Your task to perform on an android device: Open Youtube and go to "Your channel" Image 0: 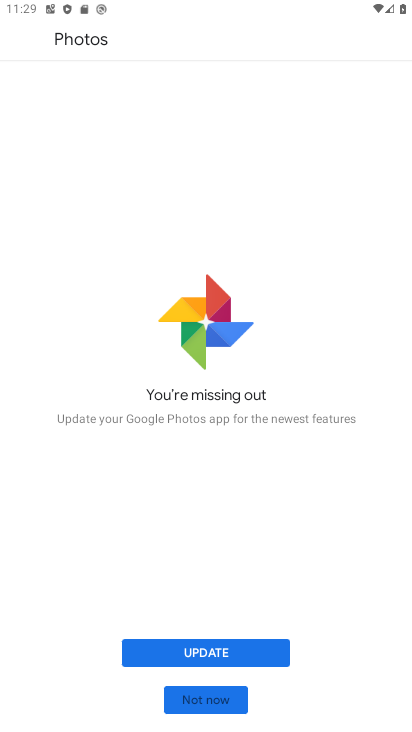
Step 0: press home button
Your task to perform on an android device: Open Youtube and go to "Your channel" Image 1: 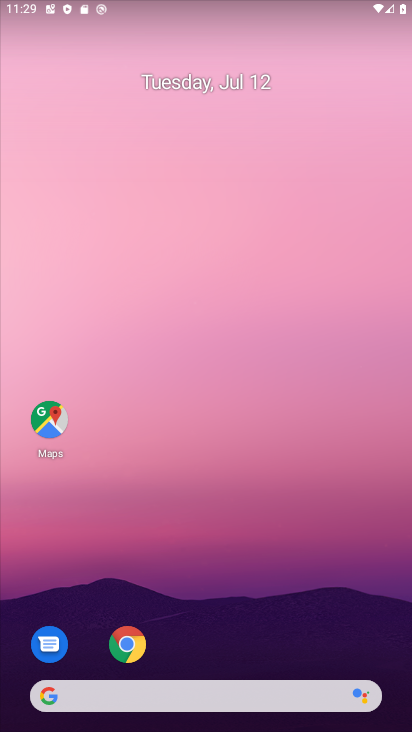
Step 1: drag from (160, 728) to (268, 28)
Your task to perform on an android device: Open Youtube and go to "Your channel" Image 2: 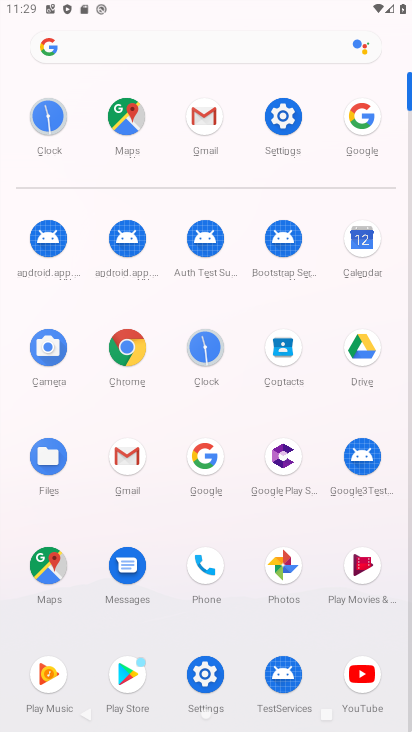
Step 2: click (366, 687)
Your task to perform on an android device: Open Youtube and go to "Your channel" Image 3: 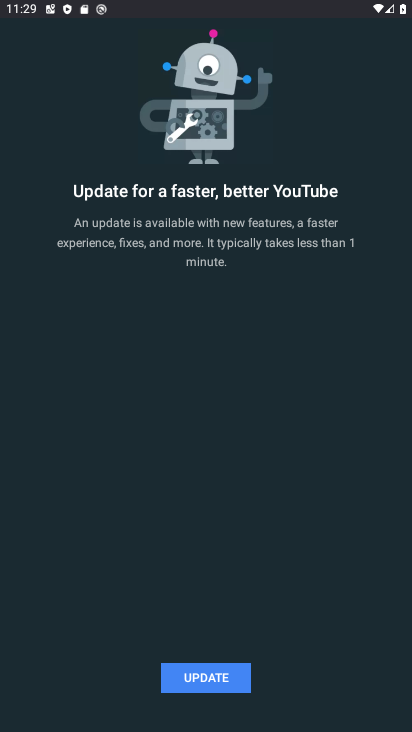
Step 3: click (194, 683)
Your task to perform on an android device: Open Youtube and go to "Your channel" Image 4: 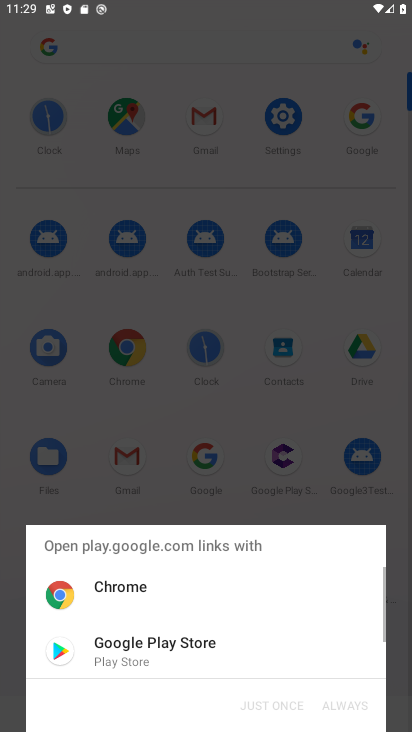
Step 4: click (139, 645)
Your task to perform on an android device: Open Youtube and go to "Your channel" Image 5: 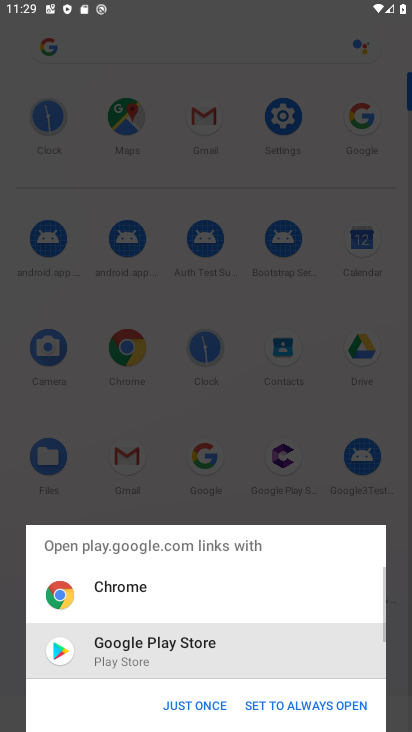
Step 5: click (184, 704)
Your task to perform on an android device: Open Youtube and go to "Your channel" Image 6: 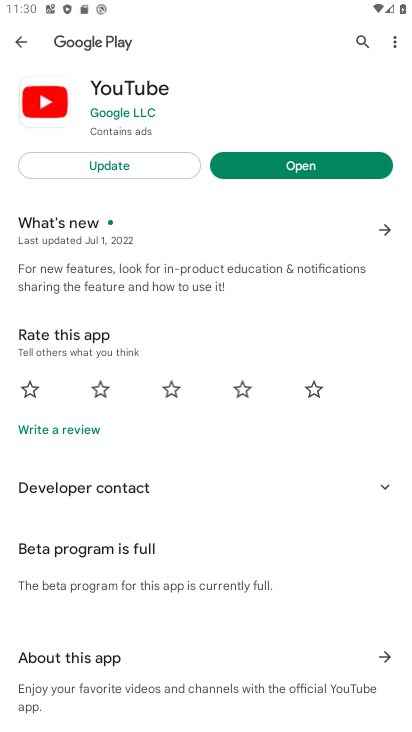
Step 6: click (128, 162)
Your task to perform on an android device: Open Youtube and go to "Your channel" Image 7: 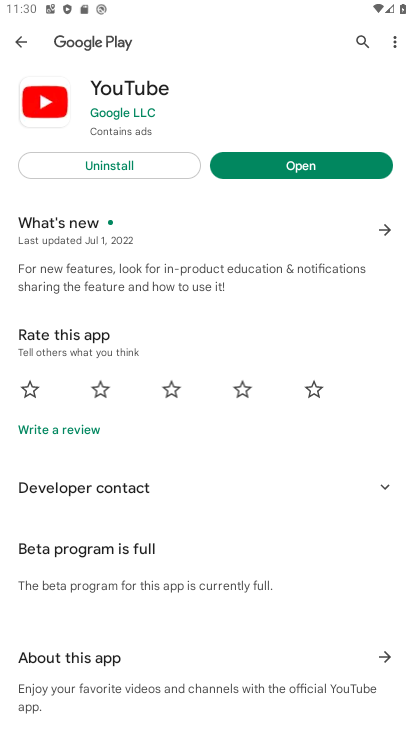
Step 7: click (314, 175)
Your task to perform on an android device: Open Youtube and go to "Your channel" Image 8: 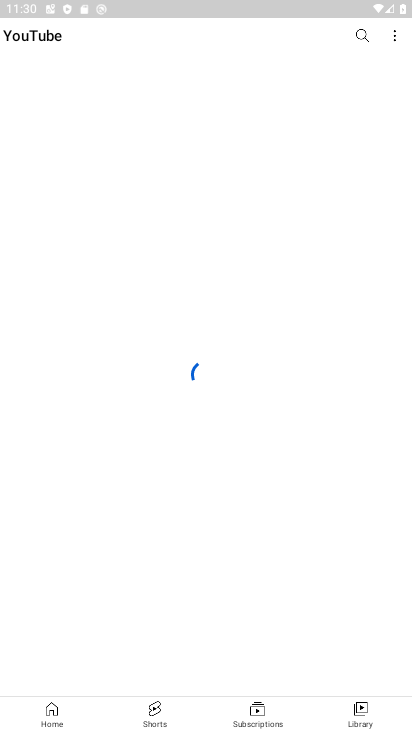
Step 8: click (394, 31)
Your task to perform on an android device: Open Youtube and go to "Your channel" Image 9: 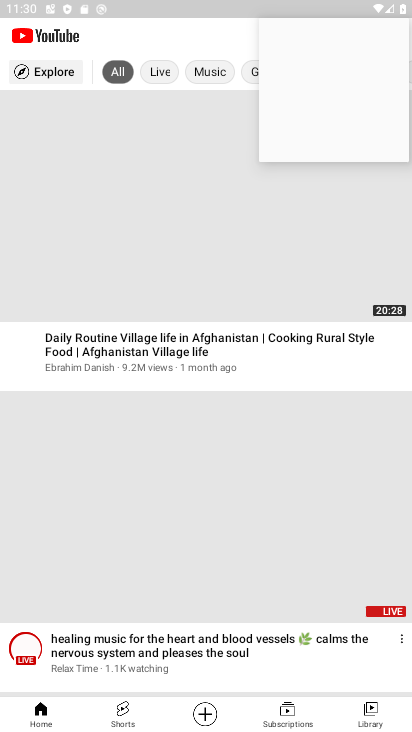
Step 9: click (394, 34)
Your task to perform on an android device: Open Youtube and go to "Your channel" Image 10: 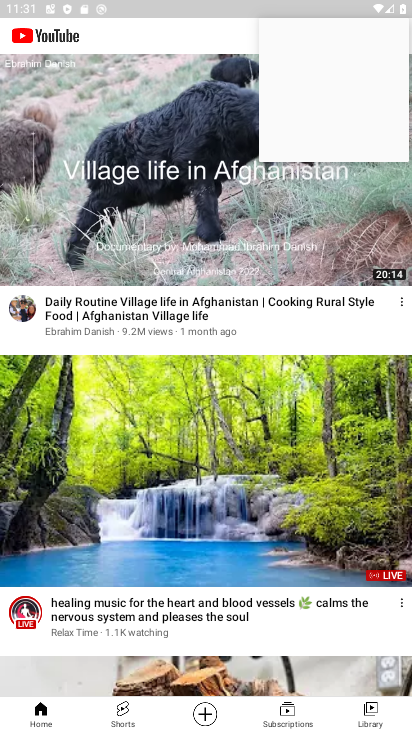
Step 10: click (42, 719)
Your task to perform on an android device: Open Youtube and go to "Your channel" Image 11: 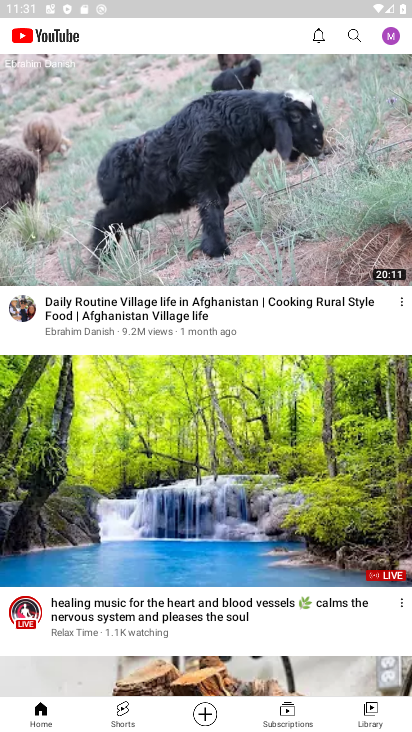
Step 11: click (386, 33)
Your task to perform on an android device: Open Youtube and go to "Your channel" Image 12: 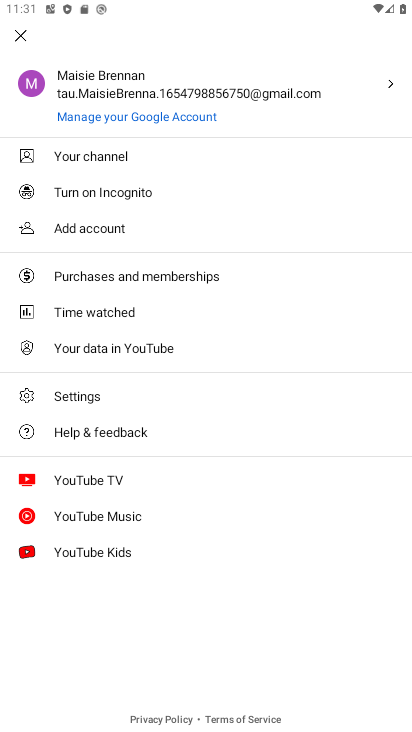
Step 12: click (111, 154)
Your task to perform on an android device: Open Youtube and go to "Your channel" Image 13: 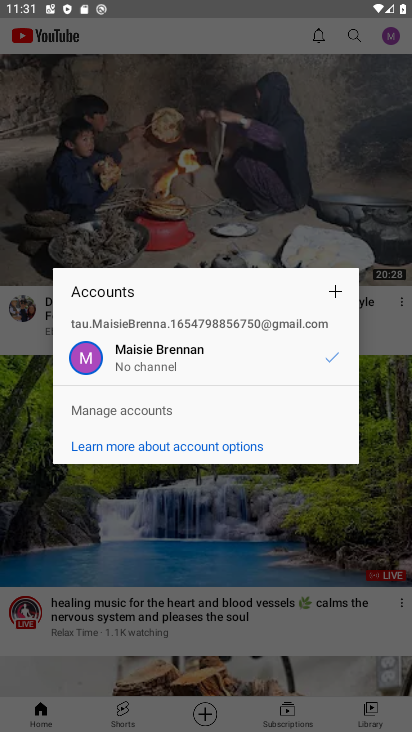
Step 13: task complete